Your task to perform on an android device: Open Google Chrome and open the bookmarks view Image 0: 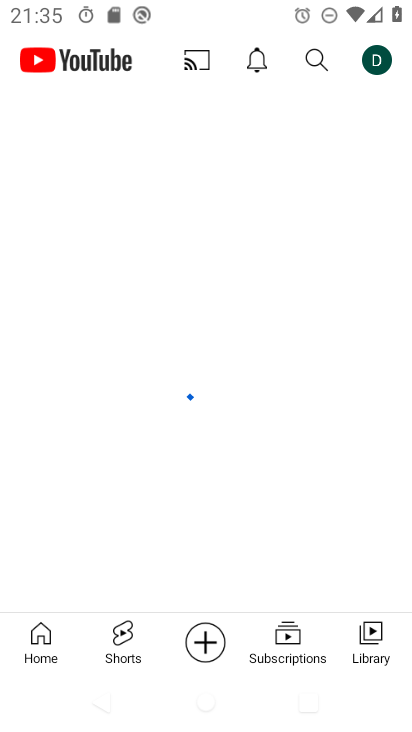
Step 0: click (411, 476)
Your task to perform on an android device: Open Google Chrome and open the bookmarks view Image 1: 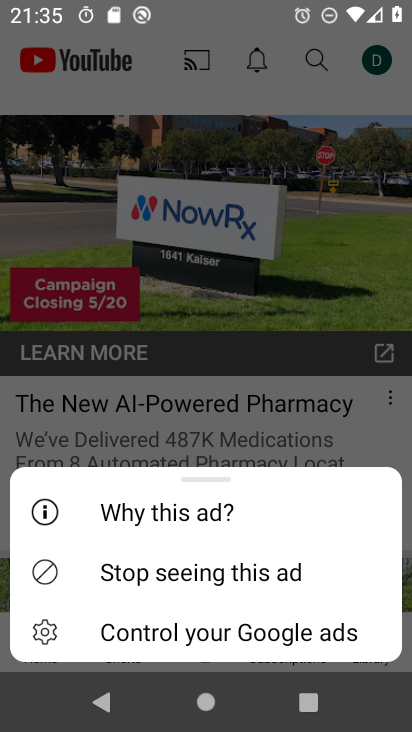
Step 1: press back button
Your task to perform on an android device: Open Google Chrome and open the bookmarks view Image 2: 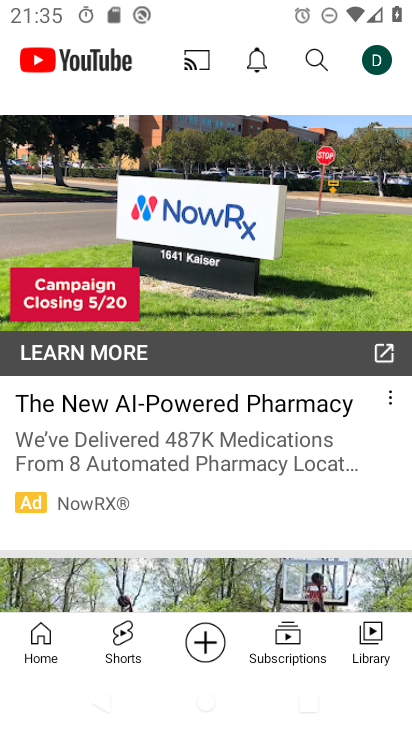
Step 2: press back button
Your task to perform on an android device: Open Google Chrome and open the bookmarks view Image 3: 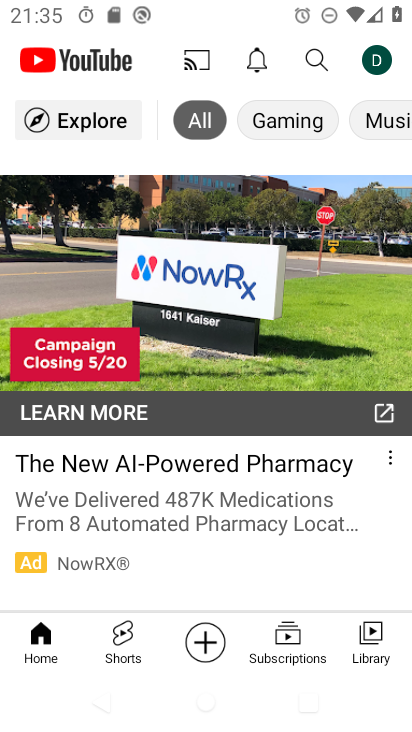
Step 3: press back button
Your task to perform on an android device: Open Google Chrome and open the bookmarks view Image 4: 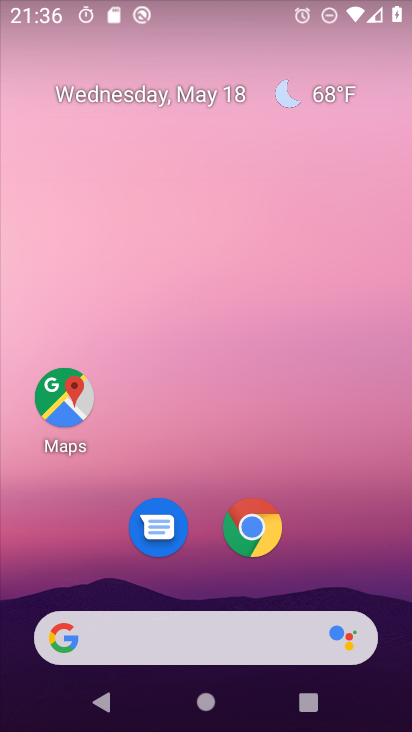
Step 4: click (257, 529)
Your task to perform on an android device: Open Google Chrome and open the bookmarks view Image 5: 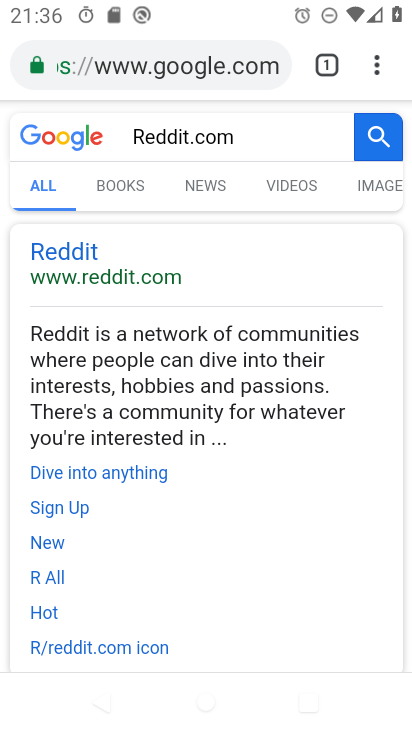
Step 5: click (376, 58)
Your task to perform on an android device: Open Google Chrome and open the bookmarks view Image 6: 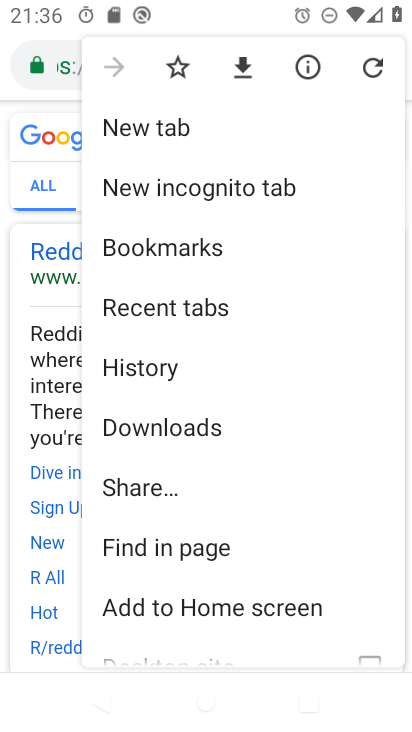
Step 6: drag from (332, 577) to (336, 233)
Your task to perform on an android device: Open Google Chrome and open the bookmarks view Image 7: 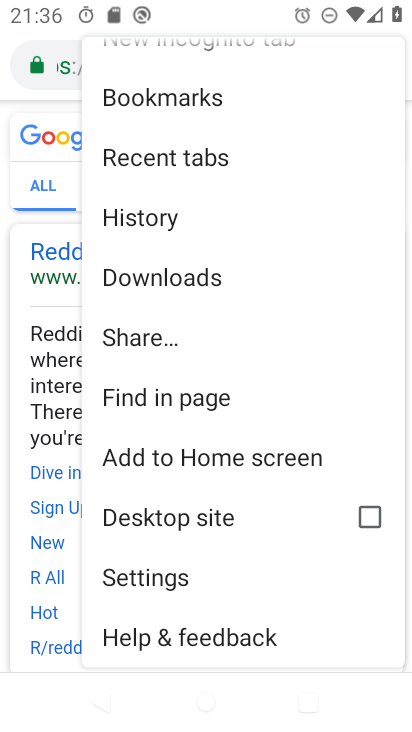
Step 7: click (150, 99)
Your task to perform on an android device: Open Google Chrome and open the bookmarks view Image 8: 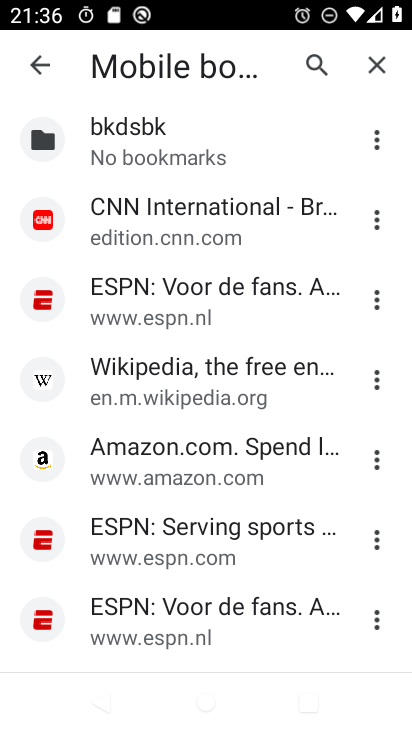
Step 8: task complete